Your task to perform on an android device: toggle improve location accuracy Image 0: 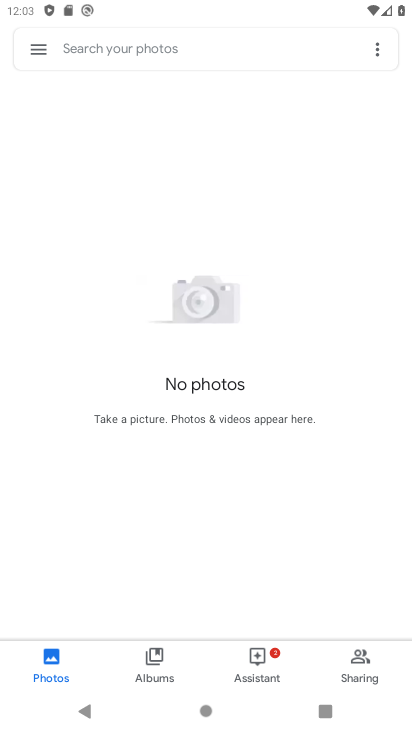
Step 0: press home button
Your task to perform on an android device: toggle improve location accuracy Image 1: 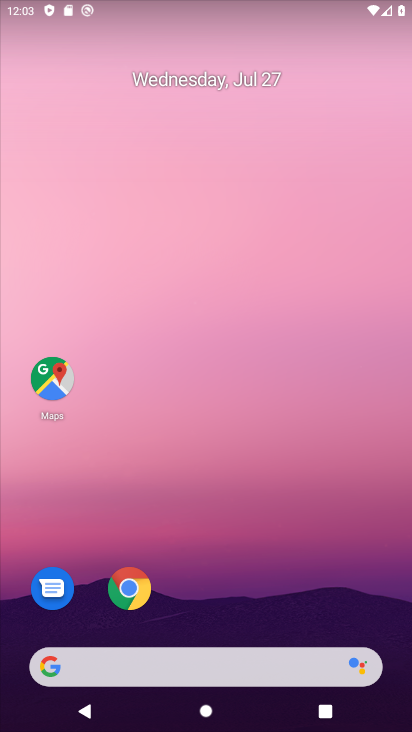
Step 1: drag from (23, 693) to (291, 13)
Your task to perform on an android device: toggle improve location accuracy Image 2: 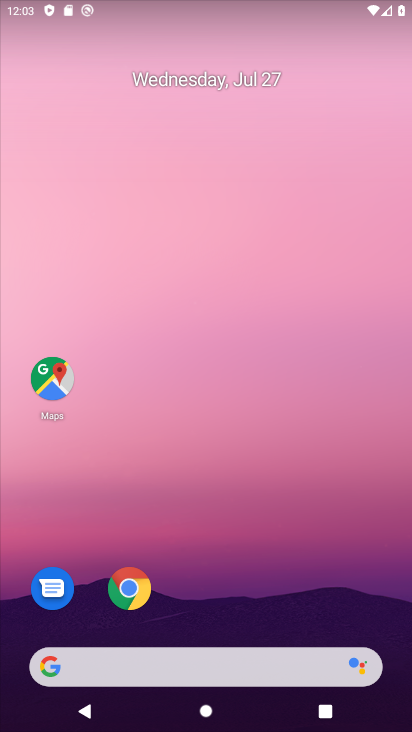
Step 2: drag from (24, 712) to (201, 66)
Your task to perform on an android device: toggle improve location accuracy Image 3: 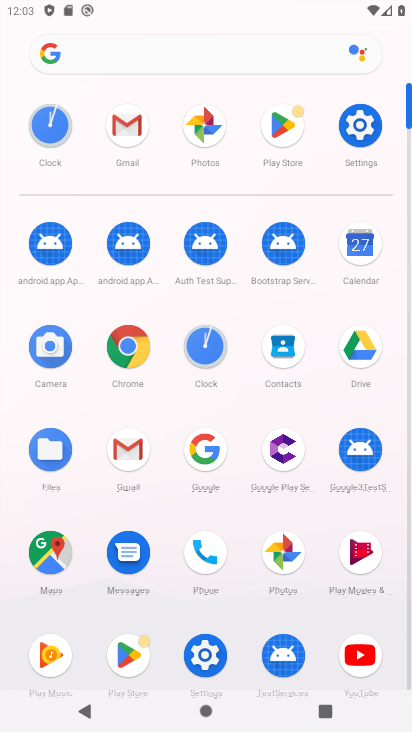
Step 3: click (193, 655)
Your task to perform on an android device: toggle improve location accuracy Image 4: 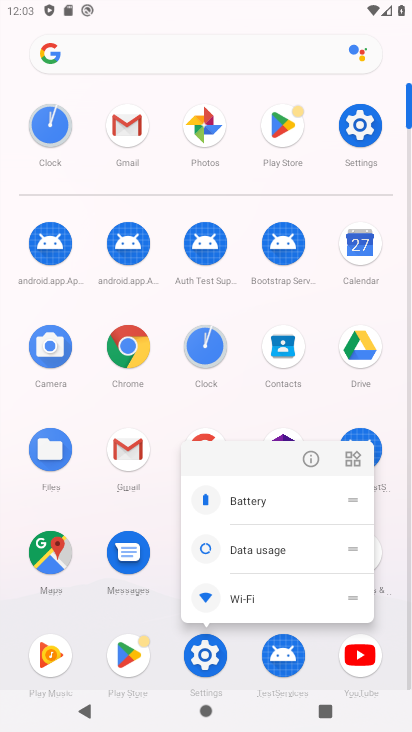
Step 4: click (201, 664)
Your task to perform on an android device: toggle improve location accuracy Image 5: 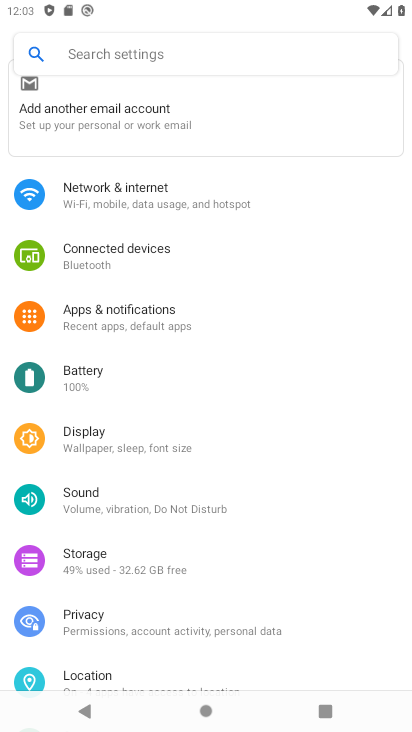
Step 5: click (91, 677)
Your task to perform on an android device: toggle improve location accuracy Image 6: 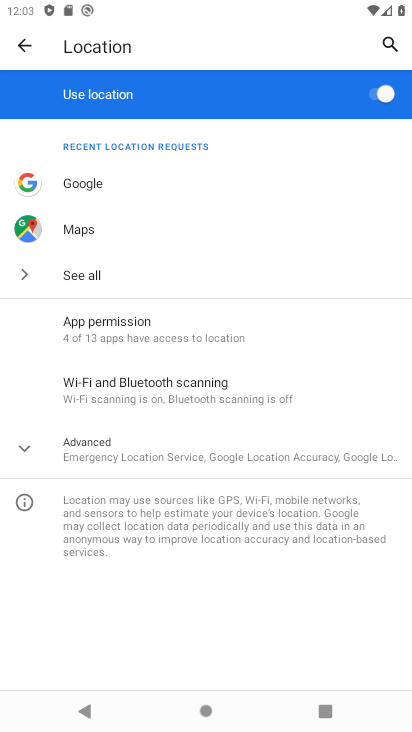
Step 6: click (64, 458)
Your task to perform on an android device: toggle improve location accuracy Image 7: 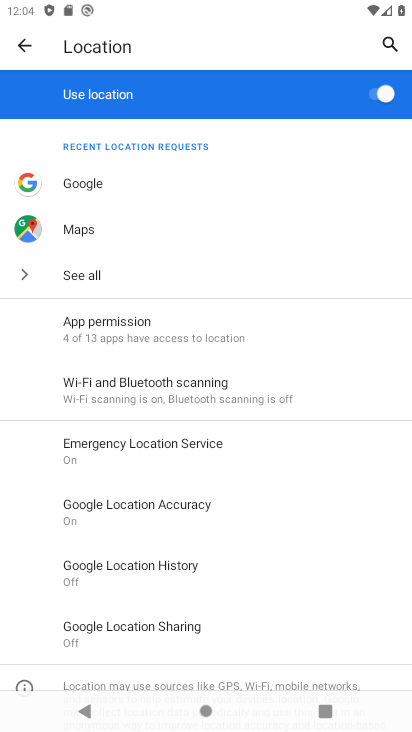
Step 7: task complete